Your task to perform on an android device: change the clock display to analog Image 0: 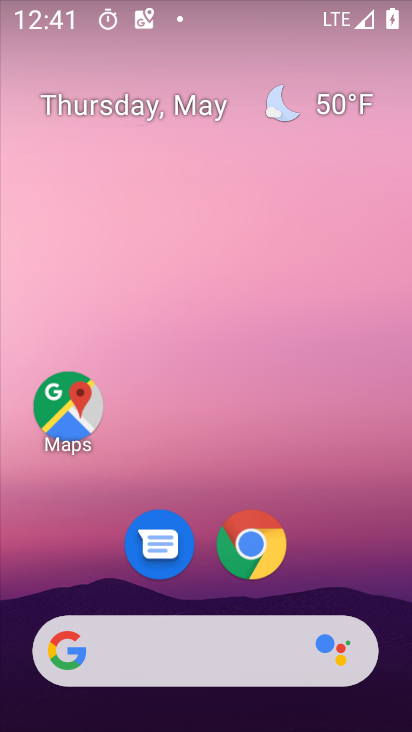
Step 0: drag from (214, 637) to (190, 68)
Your task to perform on an android device: change the clock display to analog Image 1: 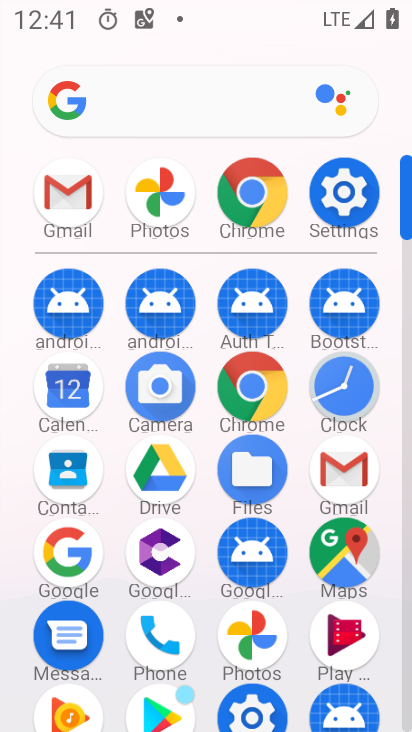
Step 1: click (331, 400)
Your task to perform on an android device: change the clock display to analog Image 2: 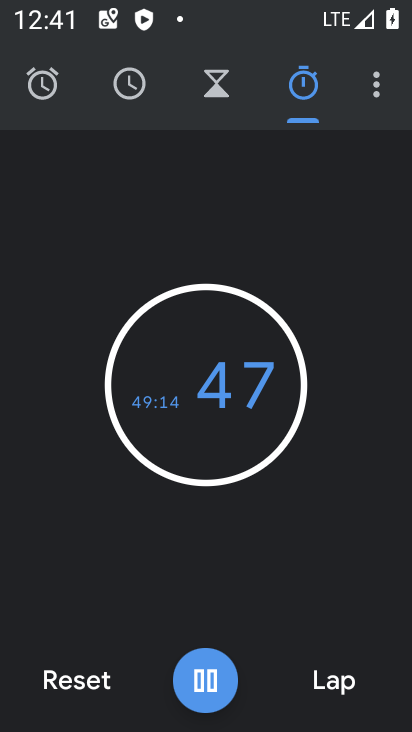
Step 2: click (368, 89)
Your task to perform on an android device: change the clock display to analog Image 3: 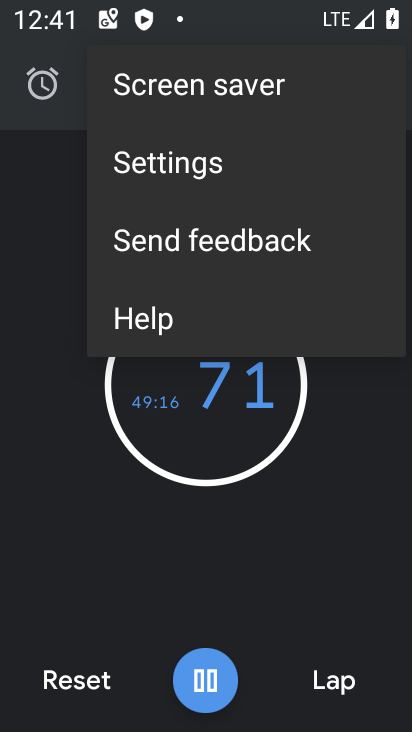
Step 3: click (227, 167)
Your task to perform on an android device: change the clock display to analog Image 4: 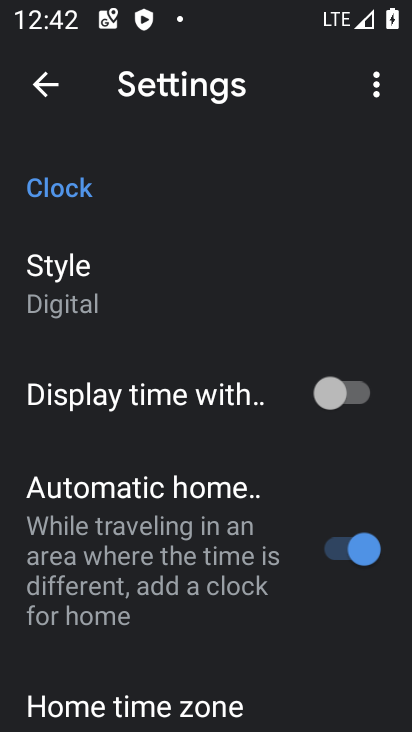
Step 4: click (123, 267)
Your task to perform on an android device: change the clock display to analog Image 5: 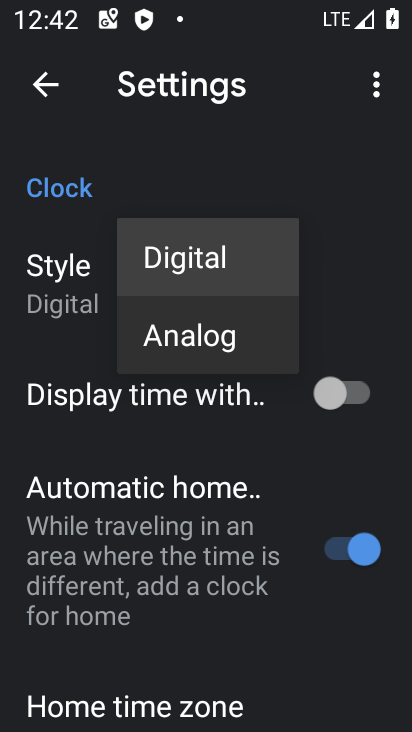
Step 5: click (181, 320)
Your task to perform on an android device: change the clock display to analog Image 6: 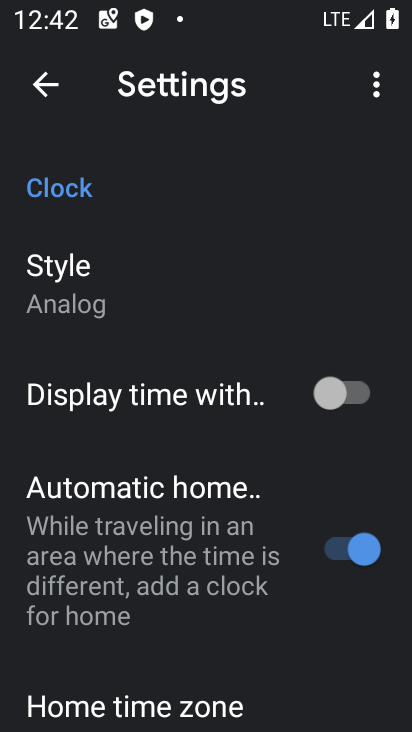
Step 6: task complete